Your task to perform on an android device: open the mobile data screen to see how much data has been used Image 0: 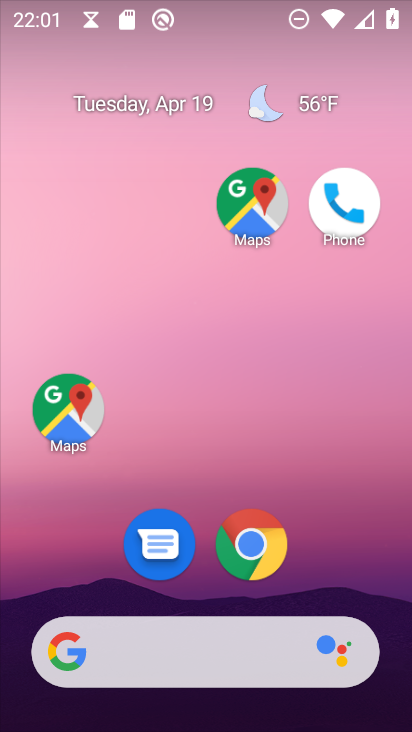
Step 0: drag from (264, 262) to (313, 115)
Your task to perform on an android device: open the mobile data screen to see how much data has been used Image 1: 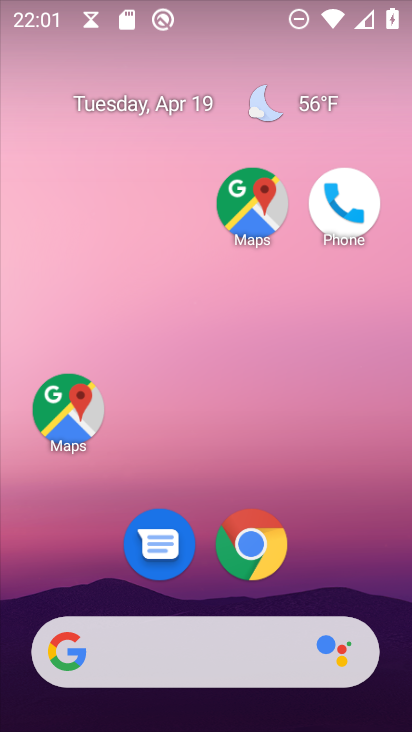
Step 1: drag from (195, 659) to (325, 67)
Your task to perform on an android device: open the mobile data screen to see how much data has been used Image 2: 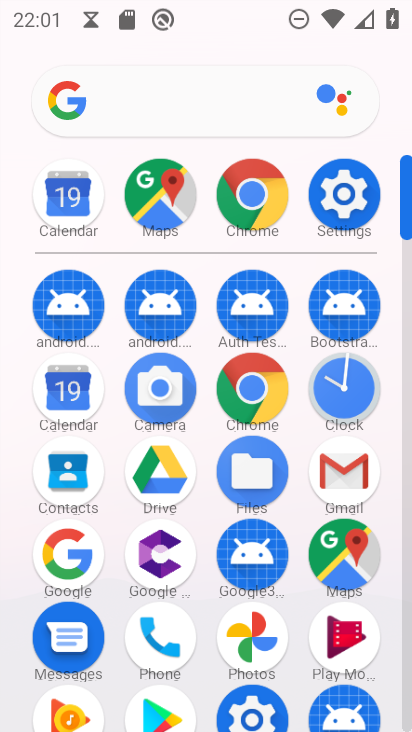
Step 2: click (343, 201)
Your task to perform on an android device: open the mobile data screen to see how much data has been used Image 3: 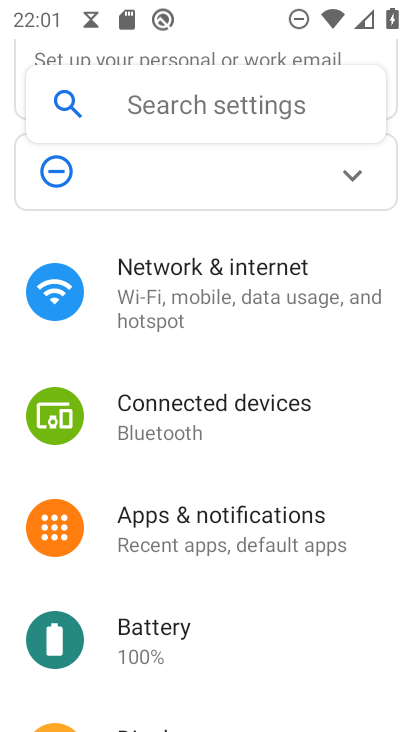
Step 3: click (284, 280)
Your task to perform on an android device: open the mobile data screen to see how much data has been used Image 4: 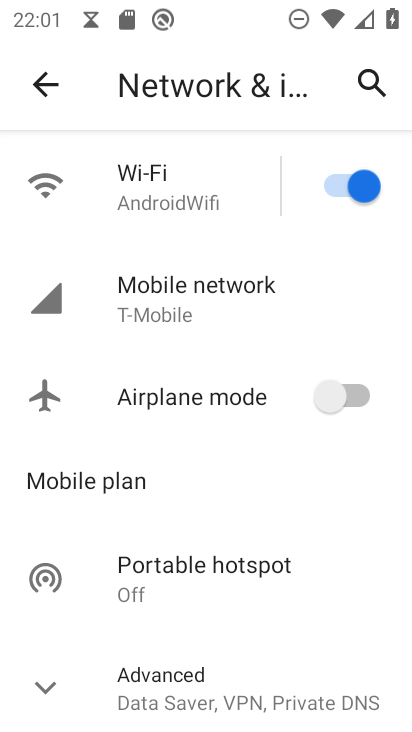
Step 4: click (187, 303)
Your task to perform on an android device: open the mobile data screen to see how much data has been used Image 5: 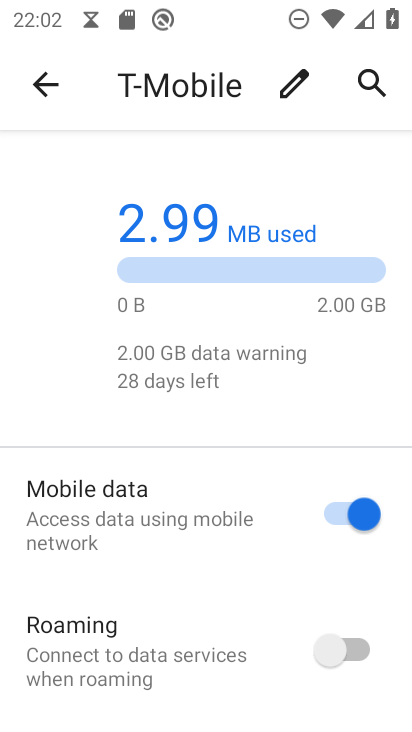
Step 5: task complete